Your task to perform on an android device: open app "Google Keep" Image 0: 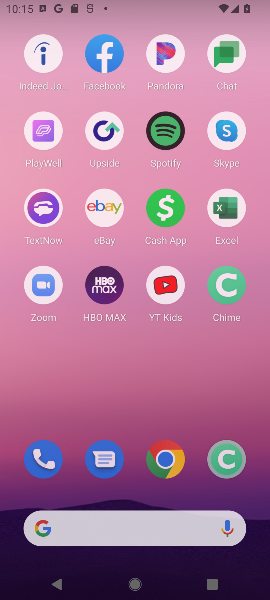
Step 0: press home button
Your task to perform on an android device: open app "Google Keep" Image 1: 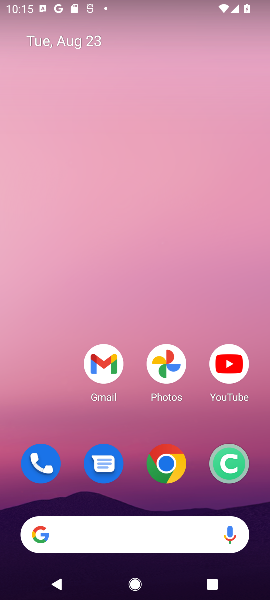
Step 1: drag from (135, 419) to (103, 0)
Your task to perform on an android device: open app "Google Keep" Image 2: 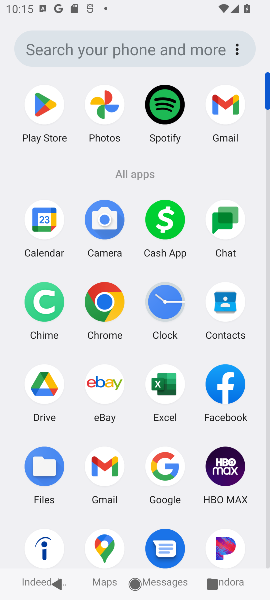
Step 2: click (43, 100)
Your task to perform on an android device: open app "Google Keep" Image 3: 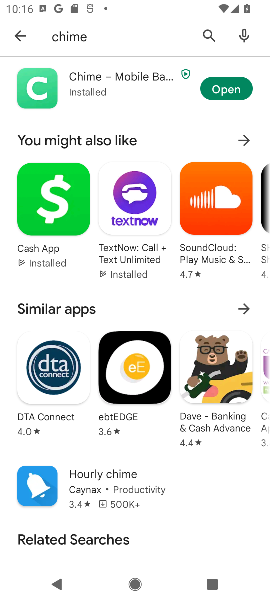
Step 3: click (204, 33)
Your task to perform on an android device: open app "Google Keep" Image 4: 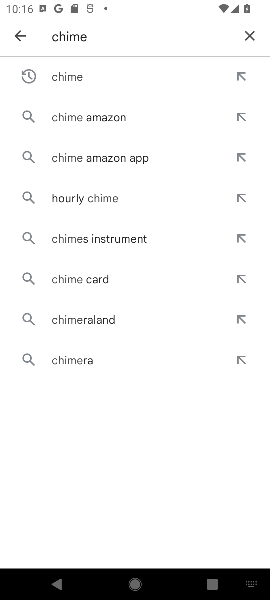
Step 4: click (251, 28)
Your task to perform on an android device: open app "Google Keep" Image 5: 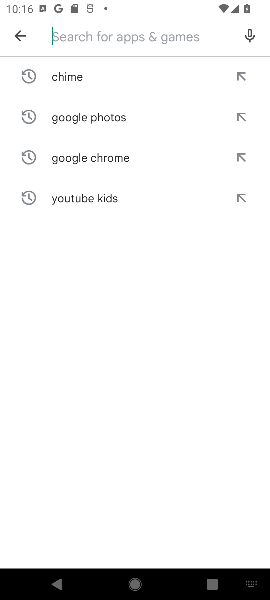
Step 5: type "Google Keep"
Your task to perform on an android device: open app "Google Keep" Image 6: 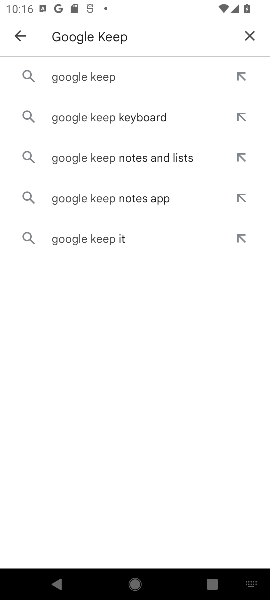
Step 6: click (121, 73)
Your task to perform on an android device: open app "Google Keep" Image 7: 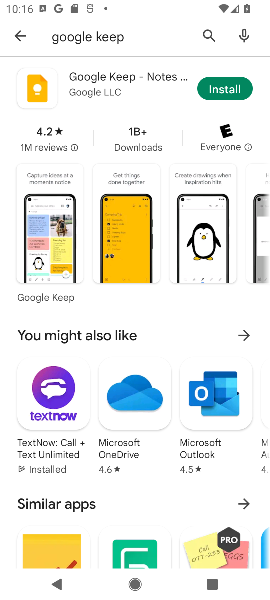
Step 7: task complete